Your task to perform on an android device: turn off javascript in the chrome app Image 0: 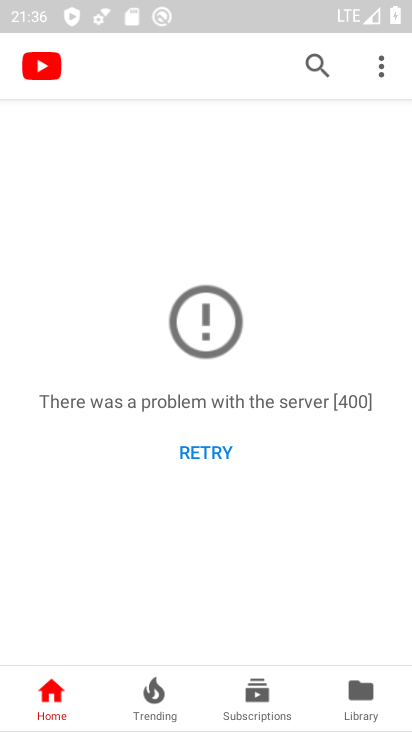
Step 0: press home button
Your task to perform on an android device: turn off javascript in the chrome app Image 1: 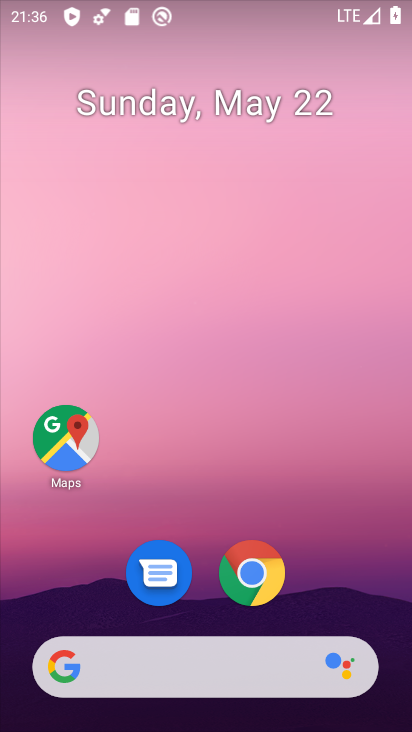
Step 1: click (247, 582)
Your task to perform on an android device: turn off javascript in the chrome app Image 2: 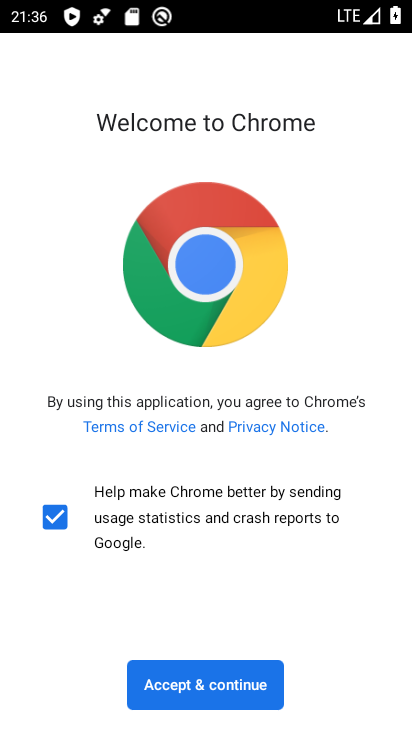
Step 2: click (243, 682)
Your task to perform on an android device: turn off javascript in the chrome app Image 3: 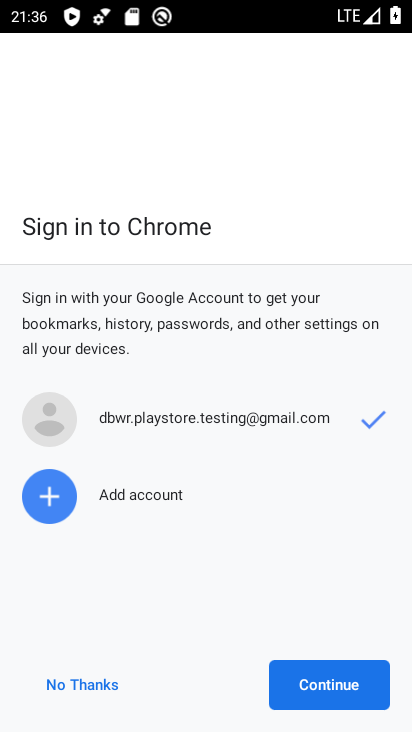
Step 3: click (380, 694)
Your task to perform on an android device: turn off javascript in the chrome app Image 4: 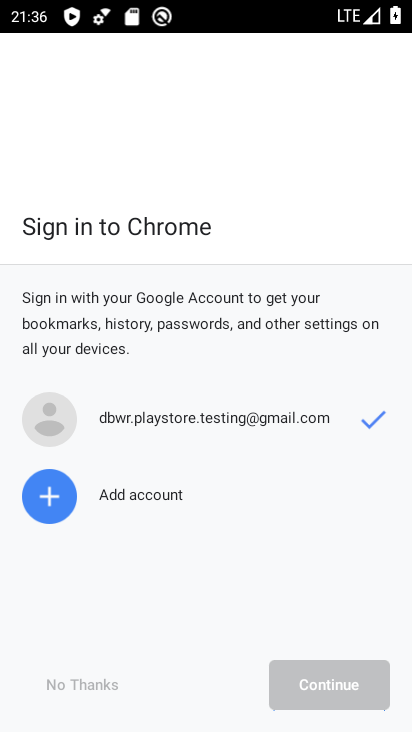
Step 4: click (380, 694)
Your task to perform on an android device: turn off javascript in the chrome app Image 5: 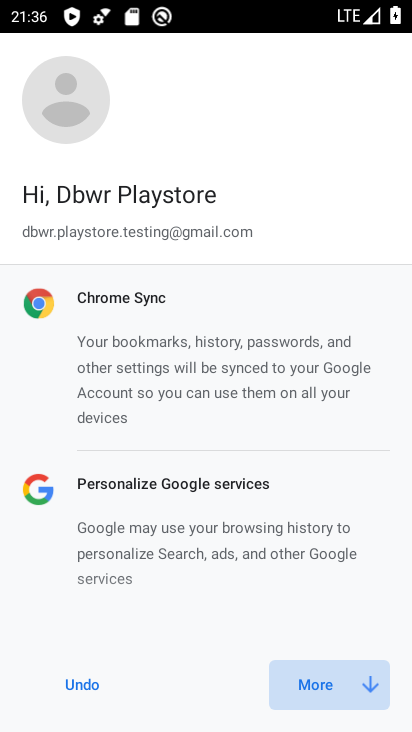
Step 5: click (380, 694)
Your task to perform on an android device: turn off javascript in the chrome app Image 6: 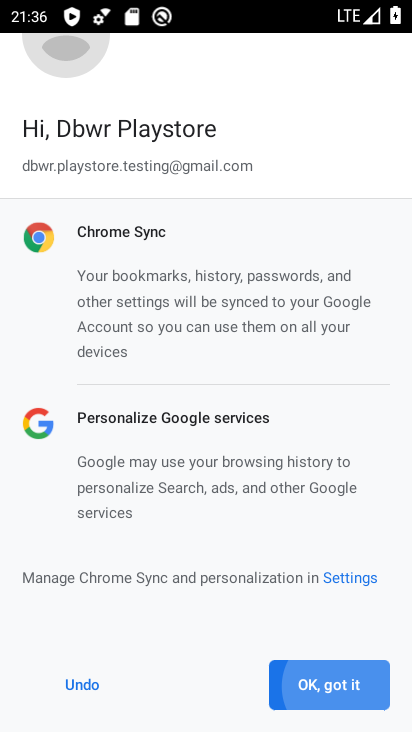
Step 6: click (380, 694)
Your task to perform on an android device: turn off javascript in the chrome app Image 7: 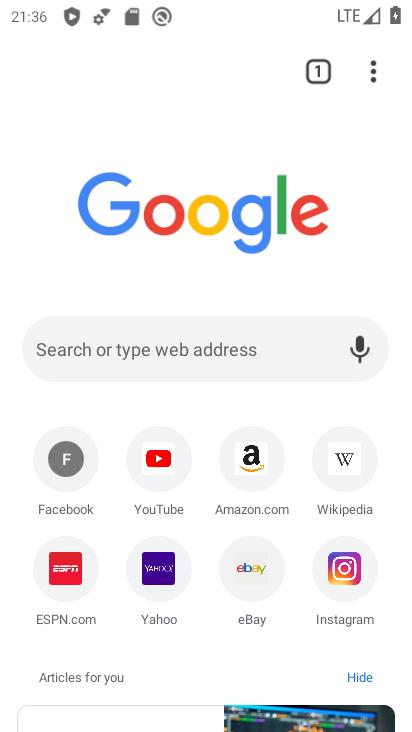
Step 7: drag from (371, 73) to (108, 593)
Your task to perform on an android device: turn off javascript in the chrome app Image 8: 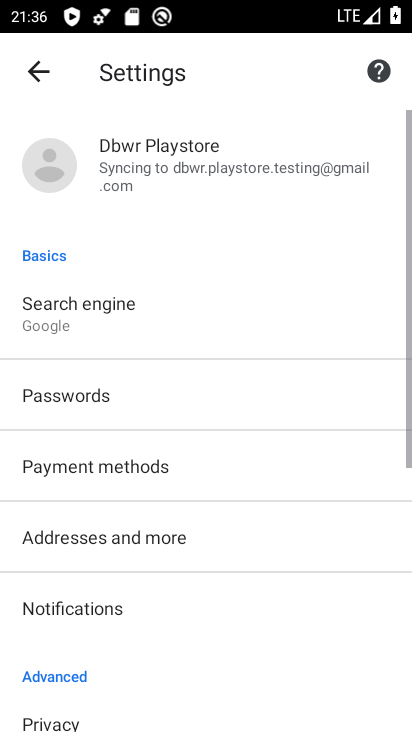
Step 8: drag from (283, 653) to (296, 0)
Your task to perform on an android device: turn off javascript in the chrome app Image 9: 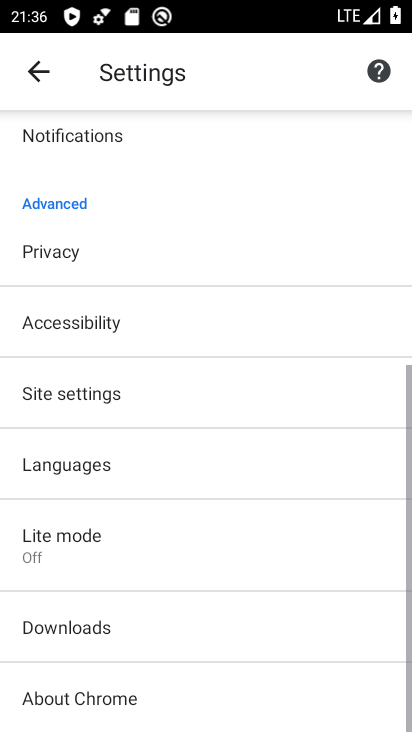
Step 9: click (108, 374)
Your task to perform on an android device: turn off javascript in the chrome app Image 10: 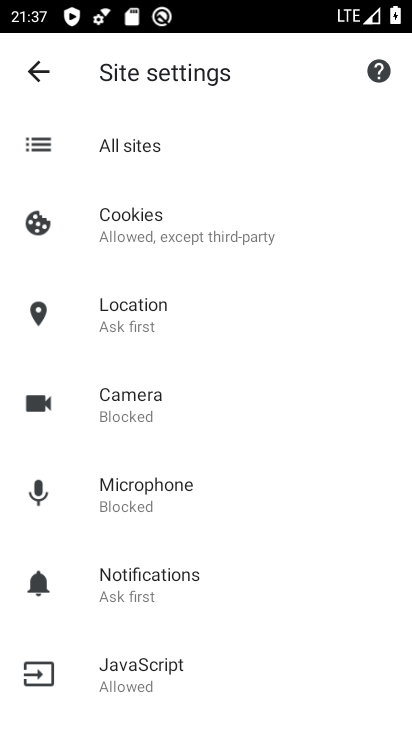
Step 10: click (146, 669)
Your task to perform on an android device: turn off javascript in the chrome app Image 11: 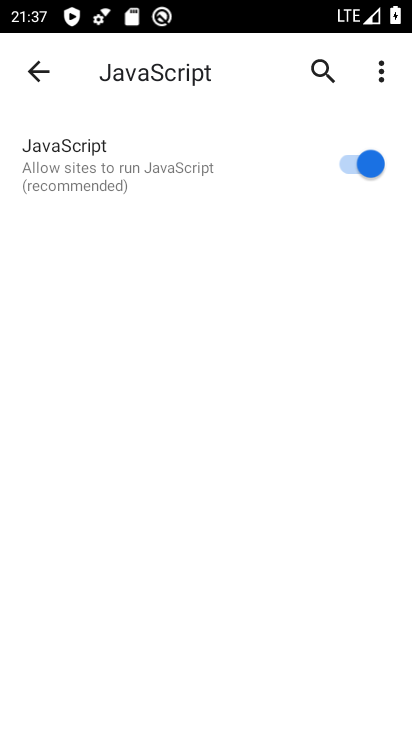
Step 11: click (356, 171)
Your task to perform on an android device: turn off javascript in the chrome app Image 12: 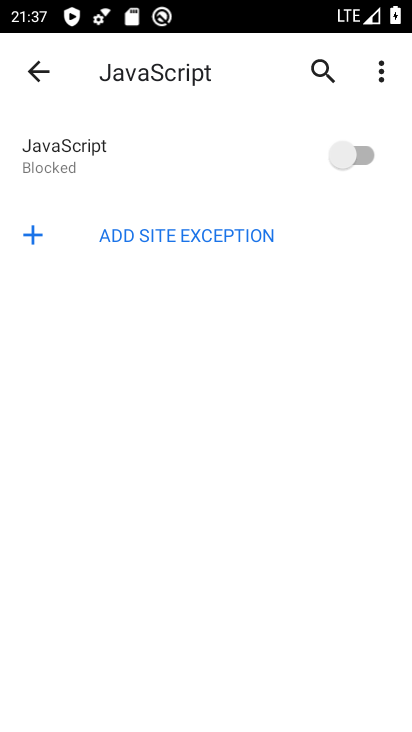
Step 12: task complete